Your task to perform on an android device: toggle priority inbox in the gmail app Image 0: 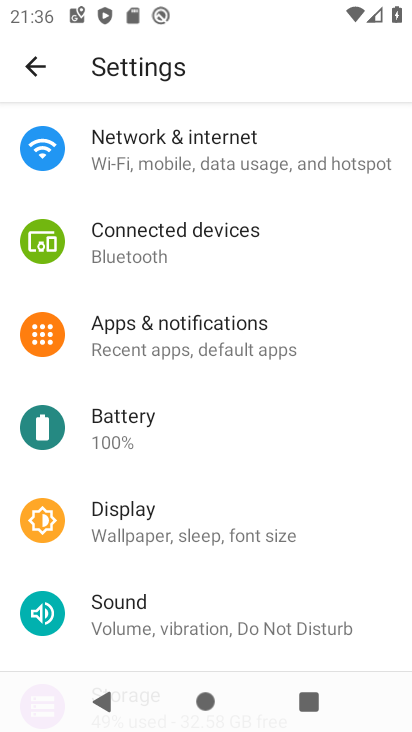
Step 0: press home button
Your task to perform on an android device: toggle priority inbox in the gmail app Image 1: 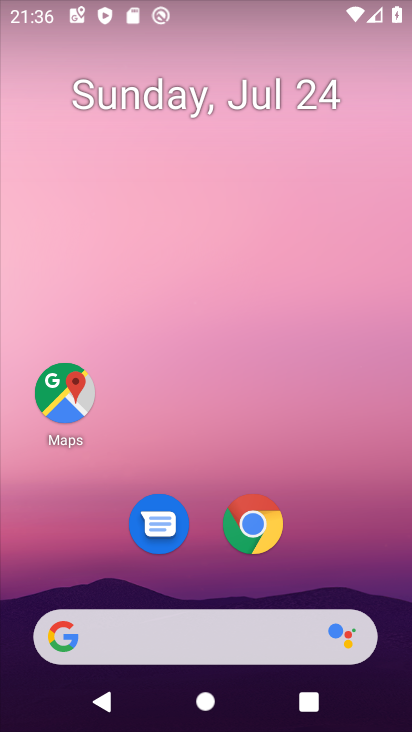
Step 1: drag from (169, 631) to (256, 250)
Your task to perform on an android device: toggle priority inbox in the gmail app Image 2: 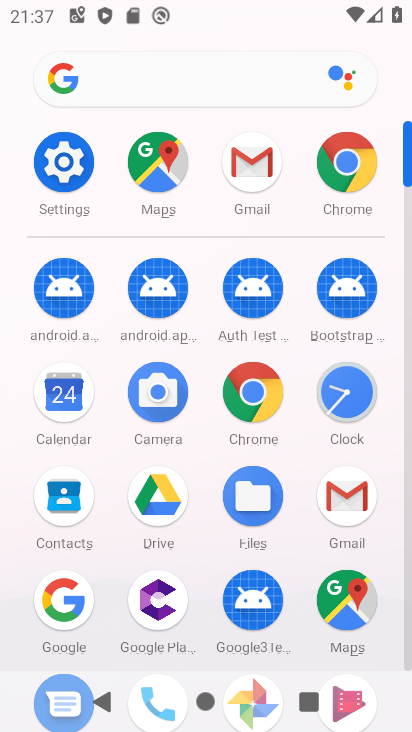
Step 2: click (240, 174)
Your task to perform on an android device: toggle priority inbox in the gmail app Image 3: 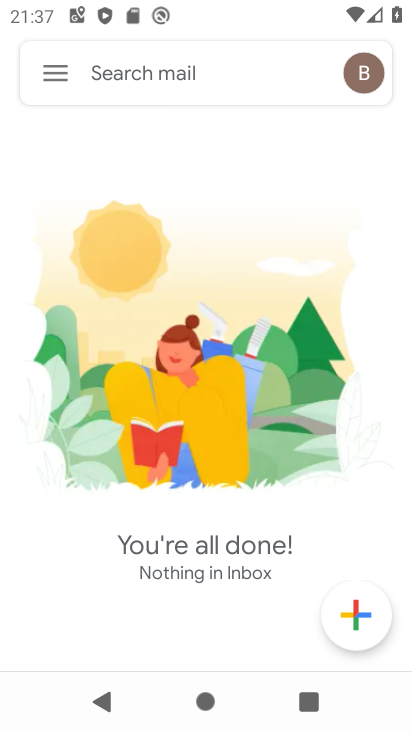
Step 3: click (55, 72)
Your task to perform on an android device: toggle priority inbox in the gmail app Image 4: 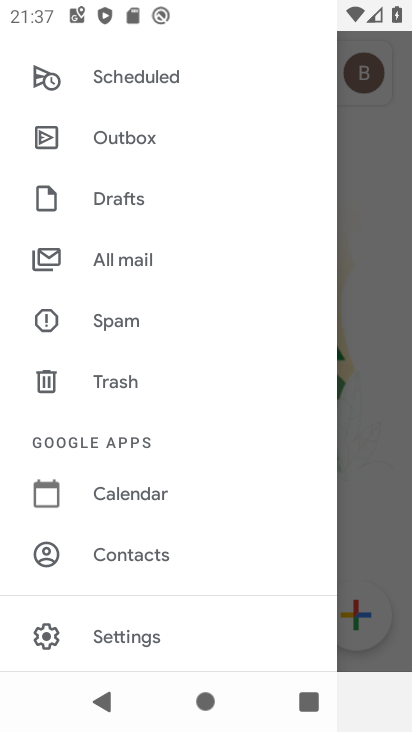
Step 4: click (126, 631)
Your task to perform on an android device: toggle priority inbox in the gmail app Image 5: 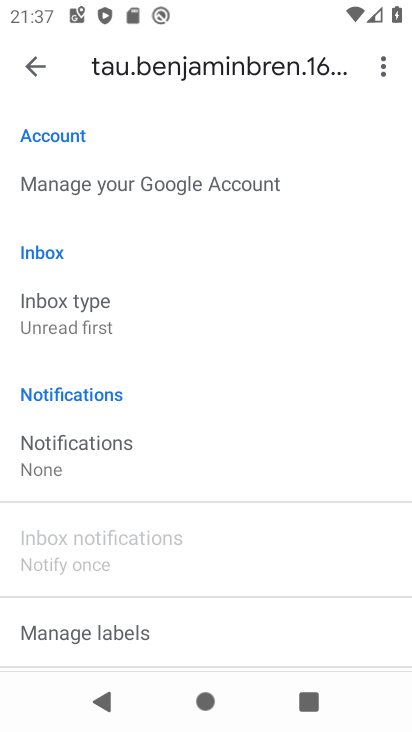
Step 5: click (96, 311)
Your task to perform on an android device: toggle priority inbox in the gmail app Image 6: 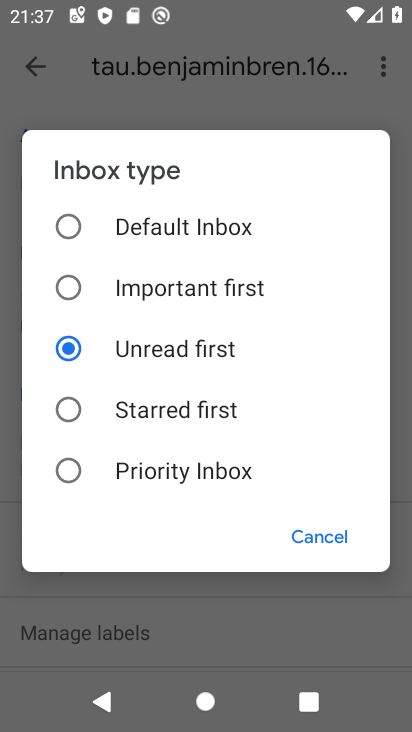
Step 6: click (66, 470)
Your task to perform on an android device: toggle priority inbox in the gmail app Image 7: 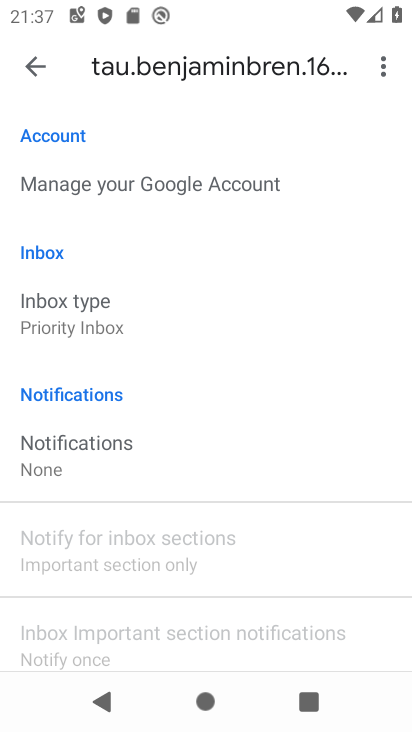
Step 7: task complete